Your task to perform on an android device: open chrome and create a bookmark for the current page Image 0: 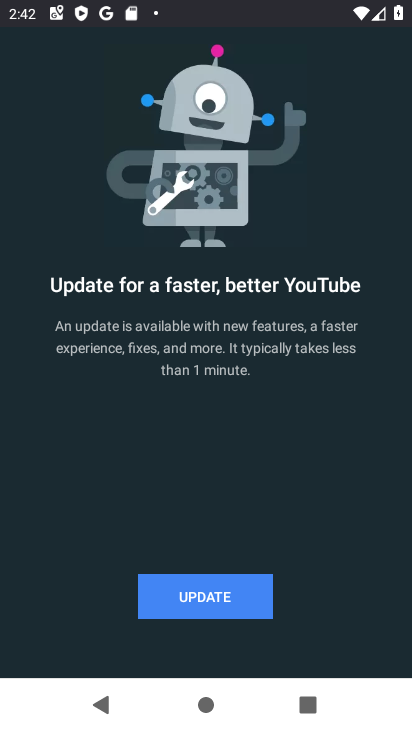
Step 0: press home button
Your task to perform on an android device: open chrome and create a bookmark for the current page Image 1: 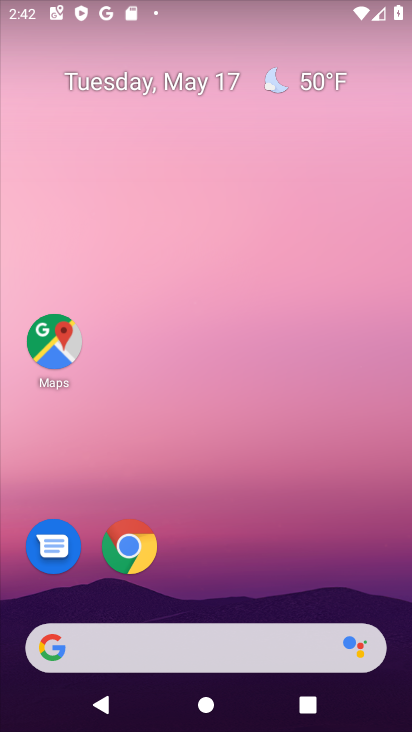
Step 1: drag from (143, 552) to (217, 552)
Your task to perform on an android device: open chrome and create a bookmark for the current page Image 2: 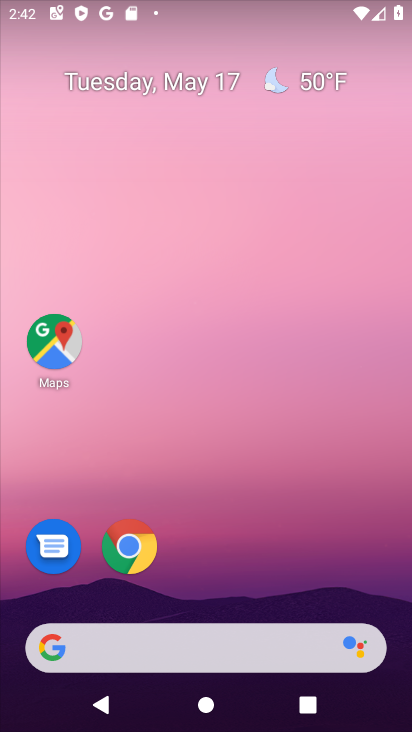
Step 2: click (136, 544)
Your task to perform on an android device: open chrome and create a bookmark for the current page Image 3: 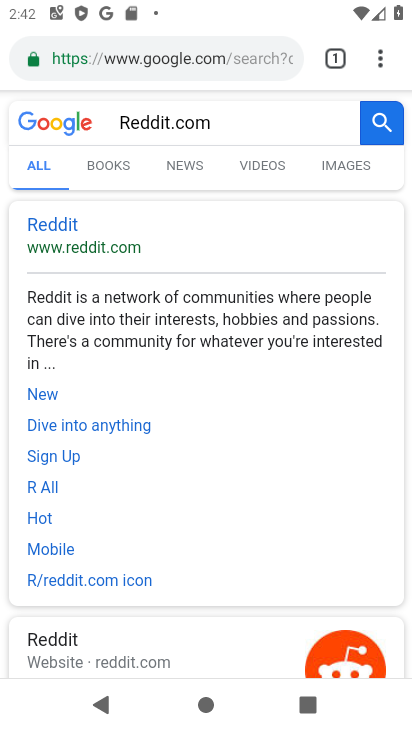
Step 3: click (383, 53)
Your task to perform on an android device: open chrome and create a bookmark for the current page Image 4: 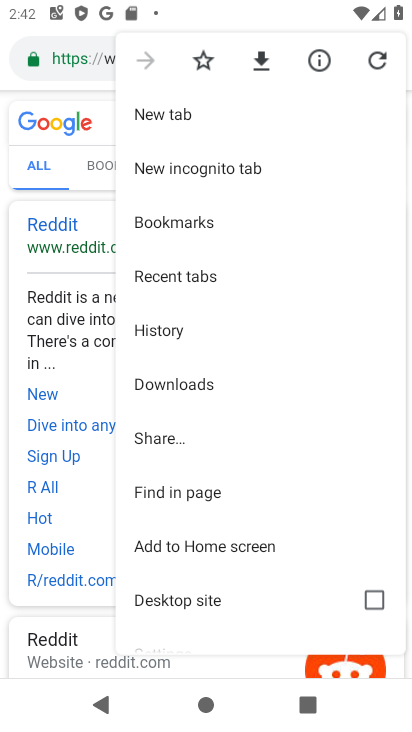
Step 4: click (207, 62)
Your task to perform on an android device: open chrome and create a bookmark for the current page Image 5: 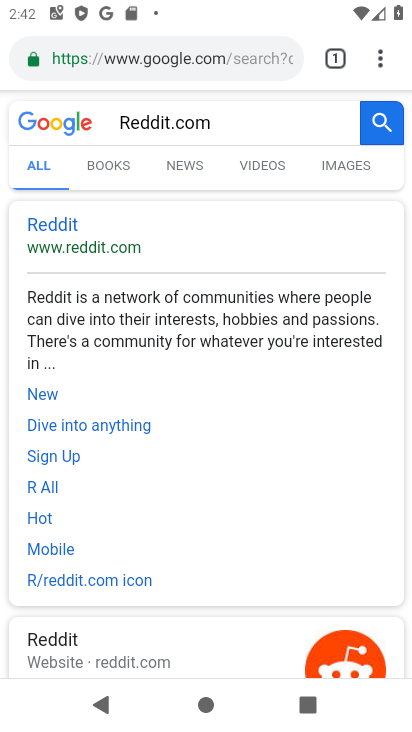
Step 5: task complete